Your task to perform on an android device: toggle notifications settings in the gmail app Image 0: 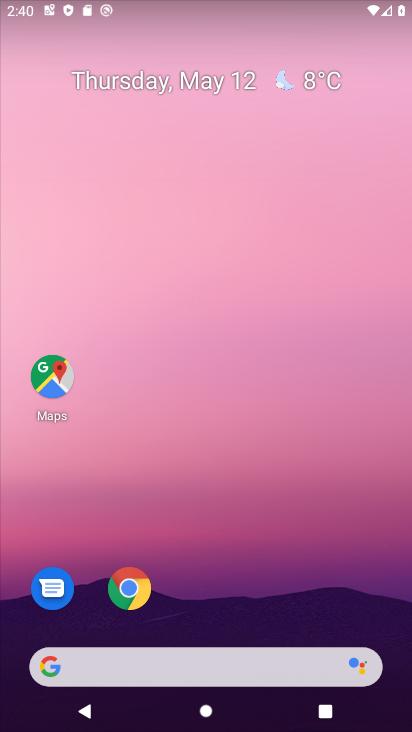
Step 0: drag from (226, 620) to (230, 160)
Your task to perform on an android device: toggle notifications settings in the gmail app Image 1: 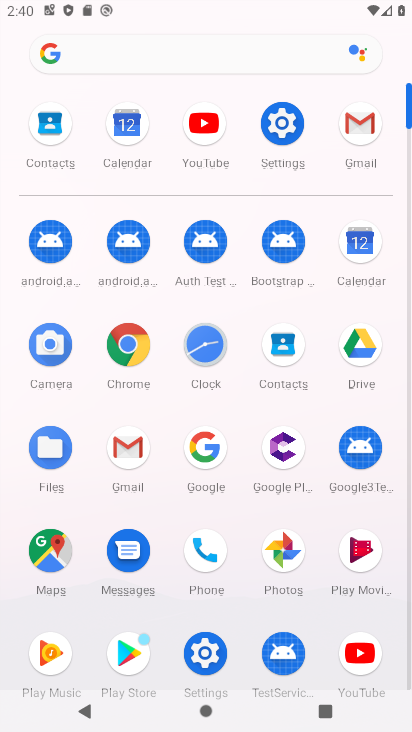
Step 1: click (363, 120)
Your task to perform on an android device: toggle notifications settings in the gmail app Image 2: 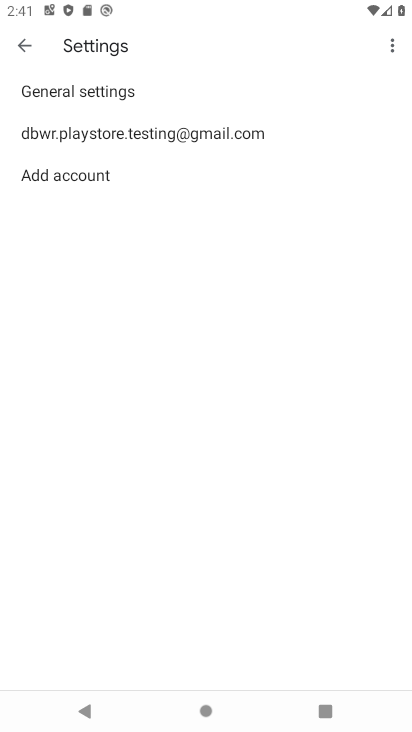
Step 2: click (188, 90)
Your task to perform on an android device: toggle notifications settings in the gmail app Image 3: 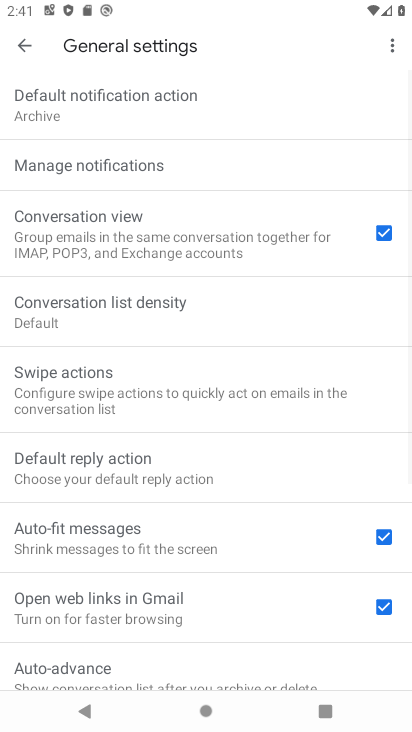
Step 3: click (183, 171)
Your task to perform on an android device: toggle notifications settings in the gmail app Image 4: 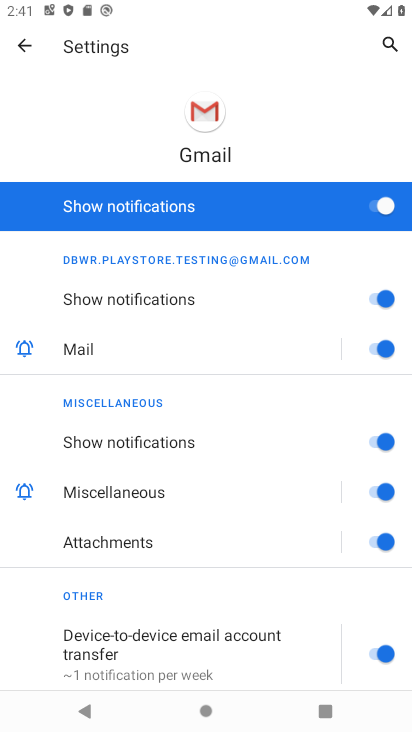
Step 4: click (320, 214)
Your task to perform on an android device: toggle notifications settings in the gmail app Image 5: 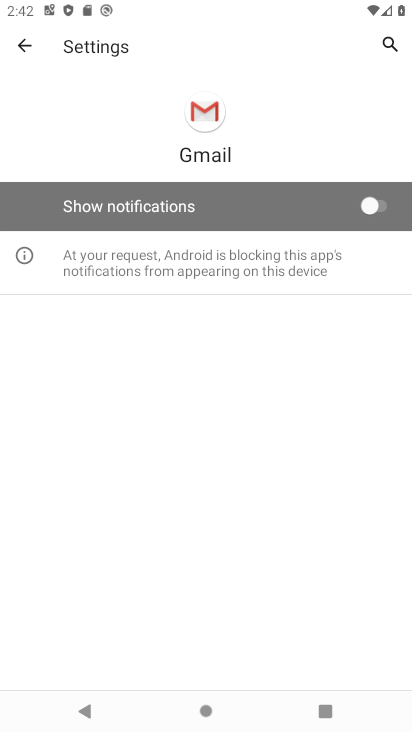
Step 5: task complete